Your task to perform on an android device: allow notifications from all sites in the chrome app Image 0: 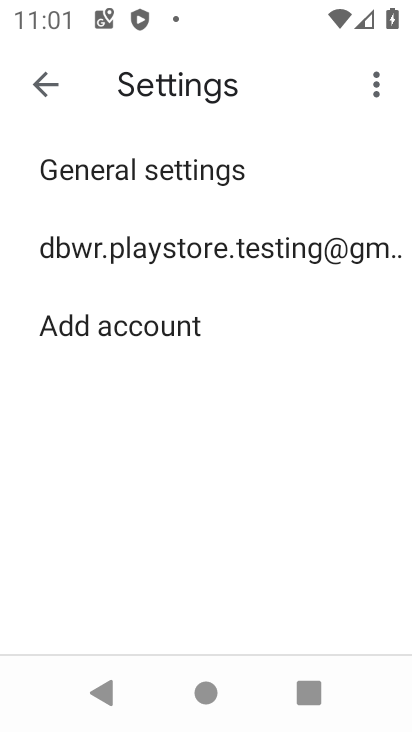
Step 0: press home button
Your task to perform on an android device: allow notifications from all sites in the chrome app Image 1: 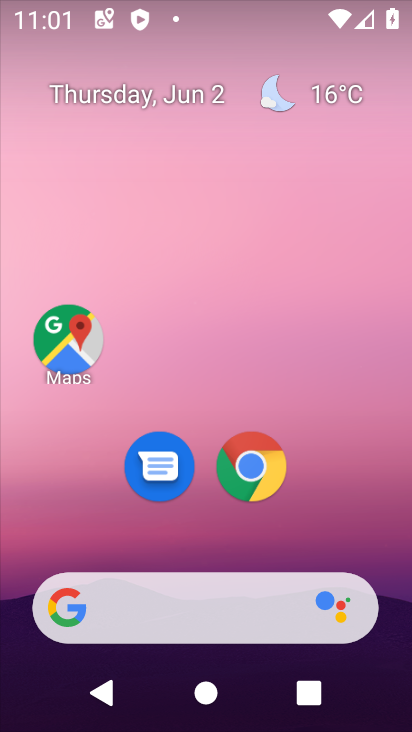
Step 1: click (247, 472)
Your task to perform on an android device: allow notifications from all sites in the chrome app Image 2: 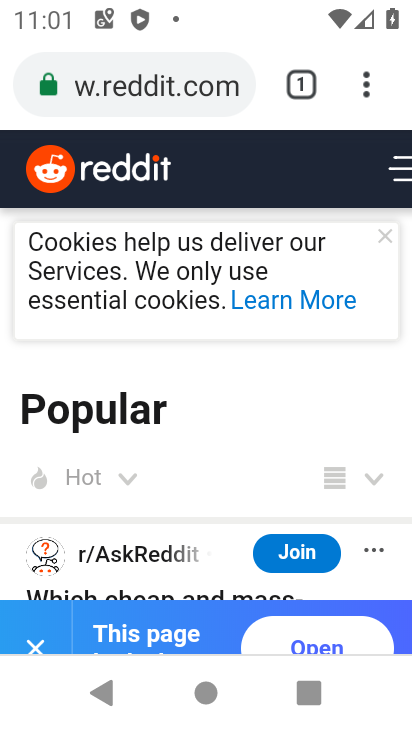
Step 2: drag from (367, 78) to (177, 533)
Your task to perform on an android device: allow notifications from all sites in the chrome app Image 3: 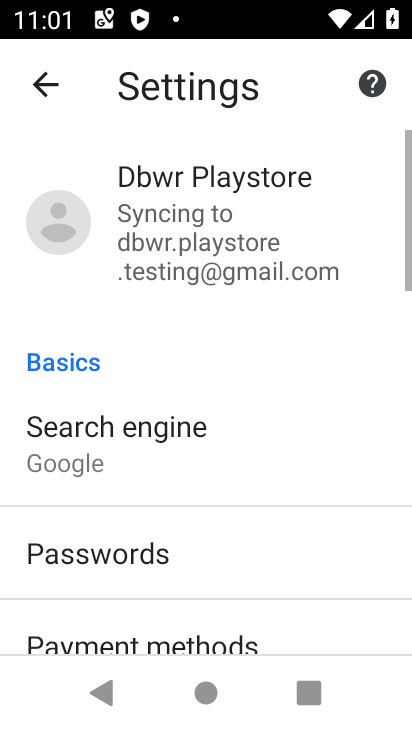
Step 3: drag from (189, 588) to (261, 243)
Your task to perform on an android device: allow notifications from all sites in the chrome app Image 4: 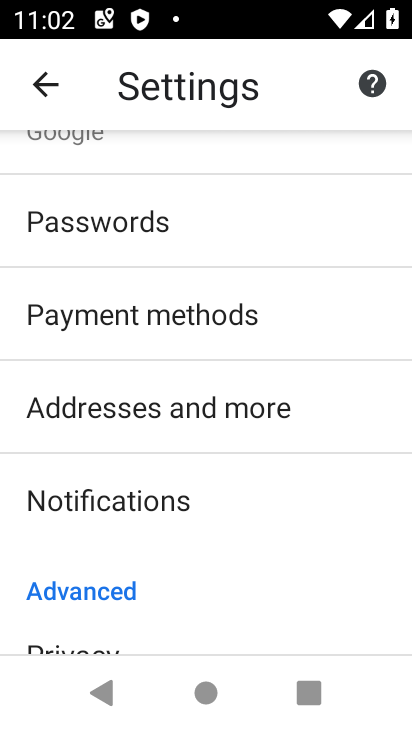
Step 4: drag from (181, 539) to (233, 150)
Your task to perform on an android device: allow notifications from all sites in the chrome app Image 5: 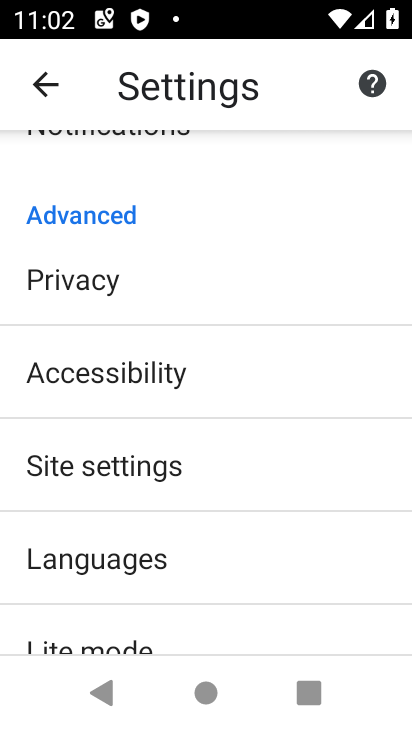
Step 5: click (167, 468)
Your task to perform on an android device: allow notifications from all sites in the chrome app Image 6: 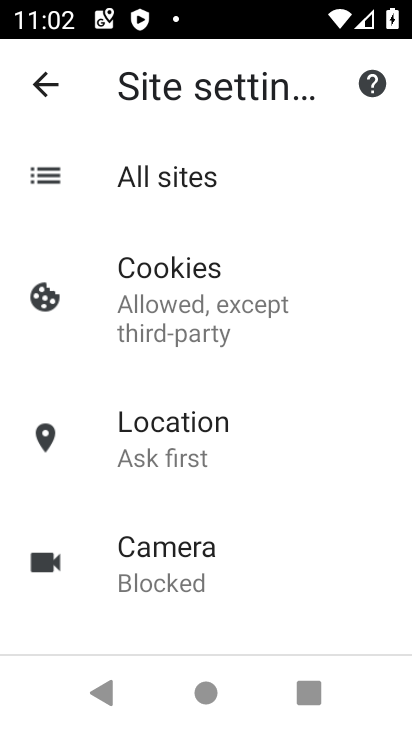
Step 6: click (210, 178)
Your task to perform on an android device: allow notifications from all sites in the chrome app Image 7: 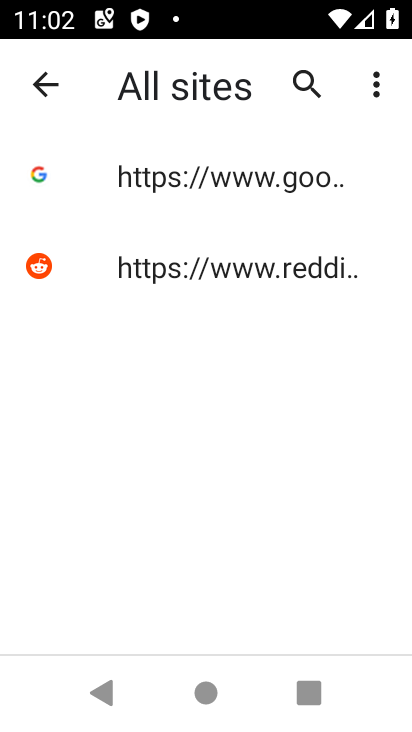
Step 7: click (213, 191)
Your task to perform on an android device: allow notifications from all sites in the chrome app Image 8: 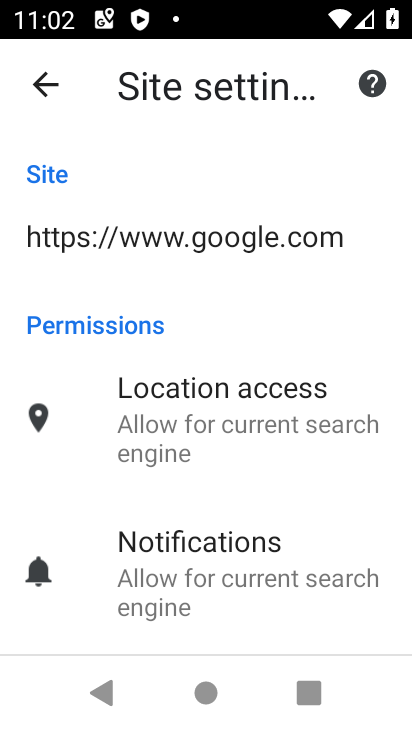
Step 8: click (257, 544)
Your task to perform on an android device: allow notifications from all sites in the chrome app Image 9: 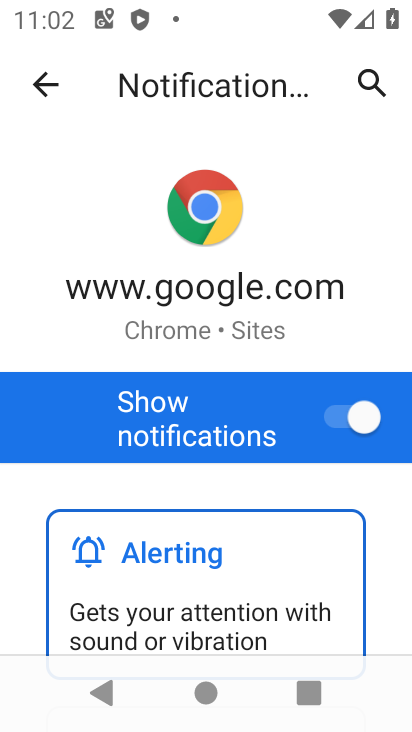
Step 9: task complete